Your task to perform on an android device: Search for sushi restaurants on Maps Image 0: 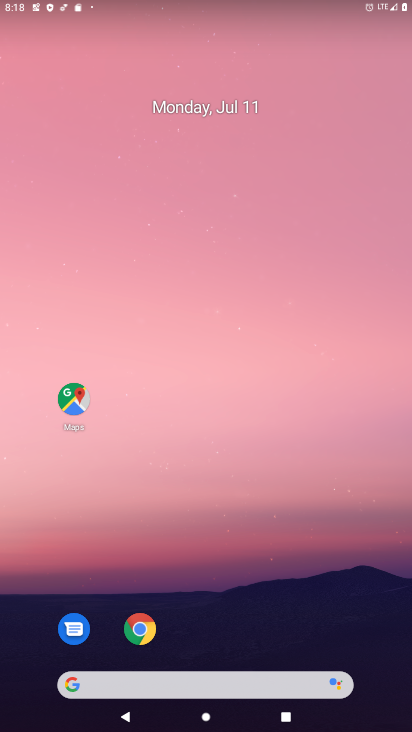
Step 0: click (73, 396)
Your task to perform on an android device: Search for sushi restaurants on Maps Image 1: 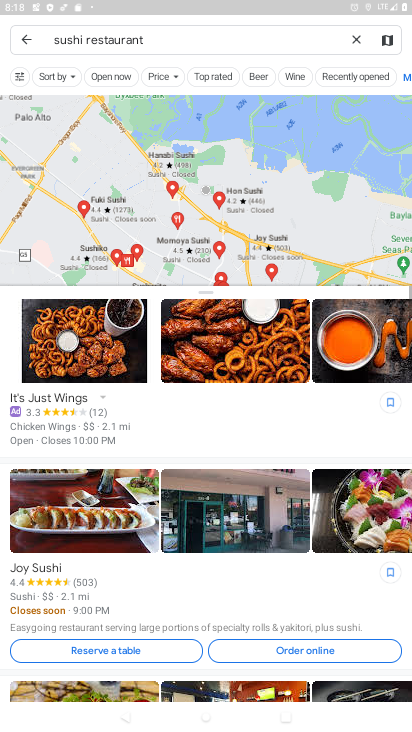
Step 1: task complete